Your task to perform on an android device: delete location history Image 0: 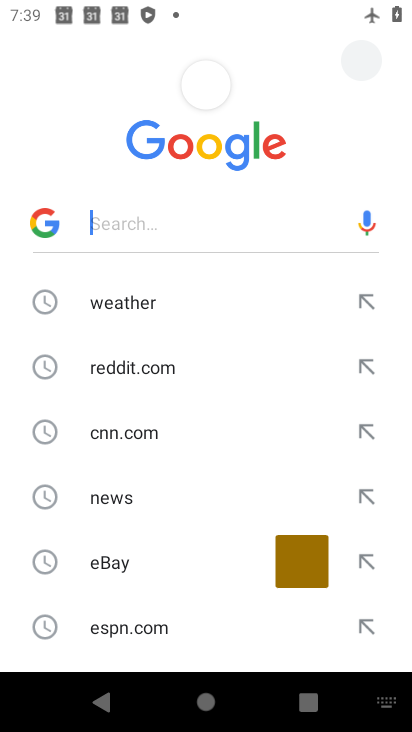
Step 0: press home button
Your task to perform on an android device: delete location history Image 1: 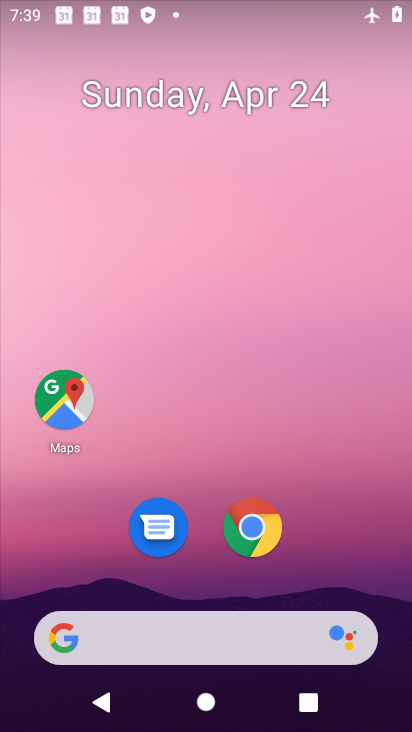
Step 1: drag from (396, 573) to (311, 34)
Your task to perform on an android device: delete location history Image 2: 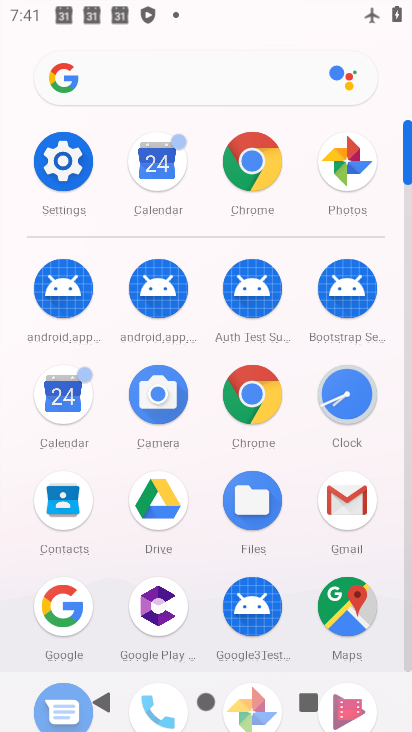
Step 2: click (51, 158)
Your task to perform on an android device: delete location history Image 3: 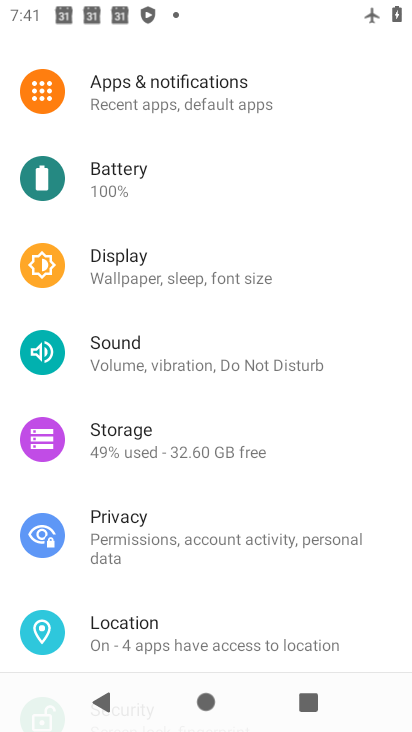
Step 3: click (138, 609)
Your task to perform on an android device: delete location history Image 4: 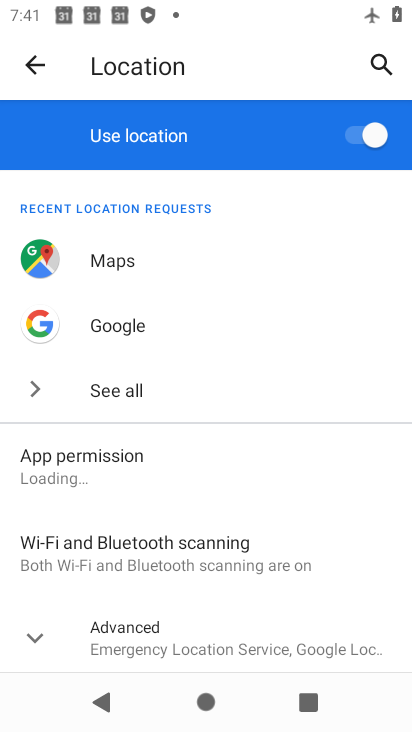
Step 4: click (120, 617)
Your task to perform on an android device: delete location history Image 5: 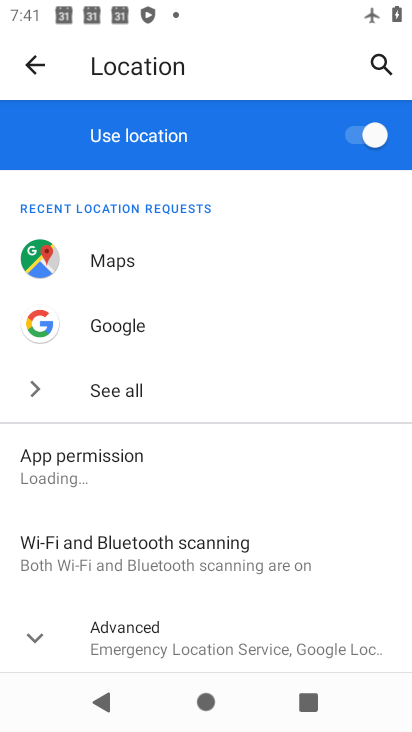
Step 5: drag from (121, 611) to (152, 209)
Your task to perform on an android device: delete location history Image 6: 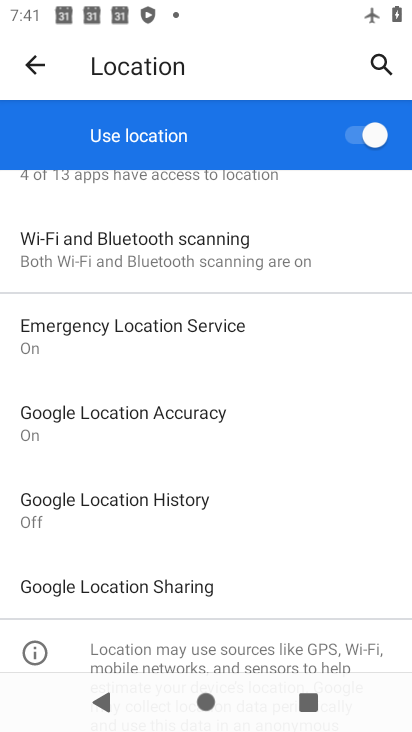
Step 6: click (142, 498)
Your task to perform on an android device: delete location history Image 7: 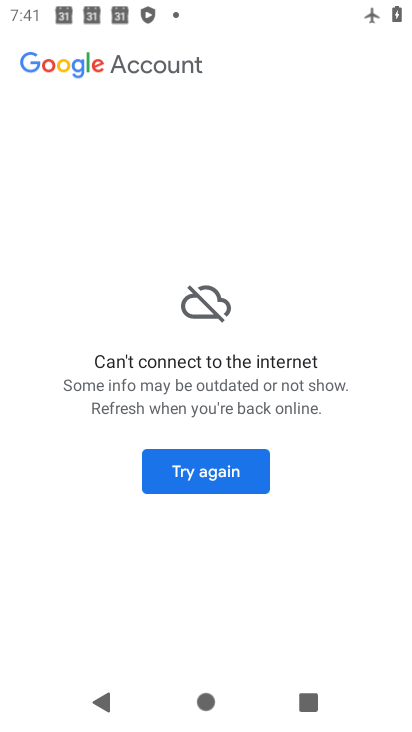
Step 7: task complete